Your task to perform on an android device: Turn off the flashlight Image 0: 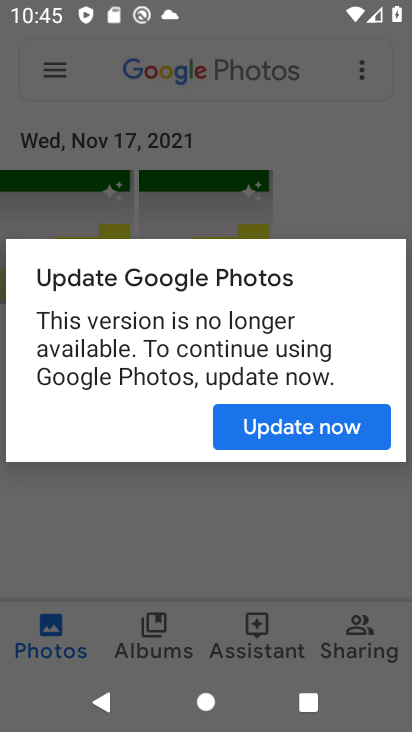
Step 0: press home button
Your task to perform on an android device: Turn off the flashlight Image 1: 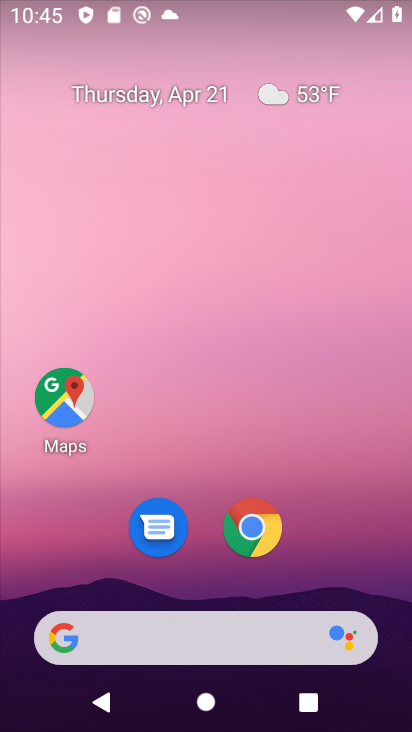
Step 1: drag from (288, 2) to (295, 376)
Your task to perform on an android device: Turn off the flashlight Image 2: 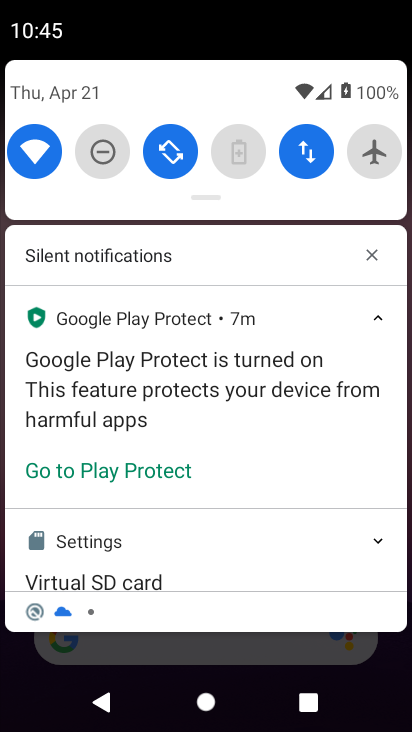
Step 2: drag from (267, 98) to (259, 426)
Your task to perform on an android device: Turn off the flashlight Image 3: 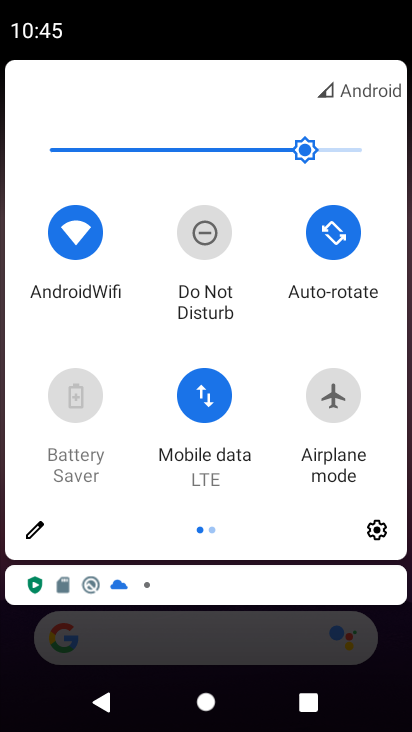
Step 3: click (27, 530)
Your task to perform on an android device: Turn off the flashlight Image 4: 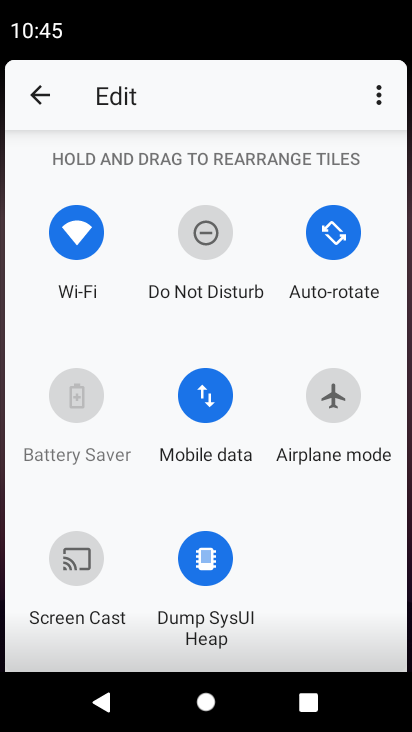
Step 4: task complete